Your task to perform on an android device: Open the map Image 0: 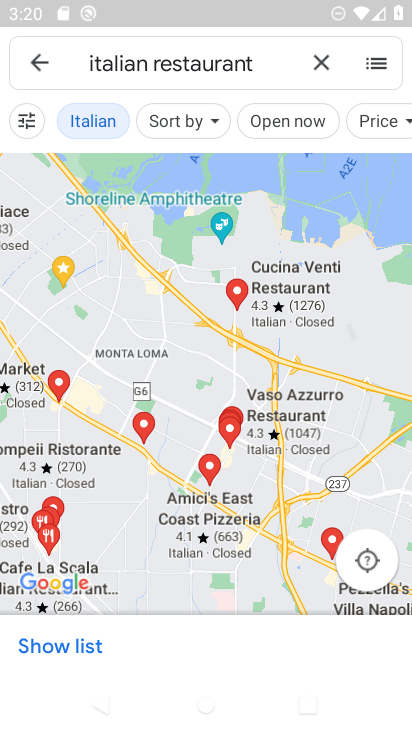
Step 0: click (200, 460)
Your task to perform on an android device: Open the map Image 1: 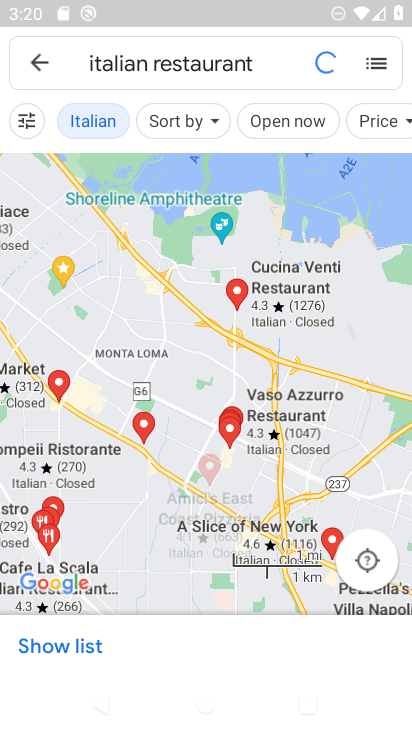
Step 1: click (314, 67)
Your task to perform on an android device: Open the map Image 2: 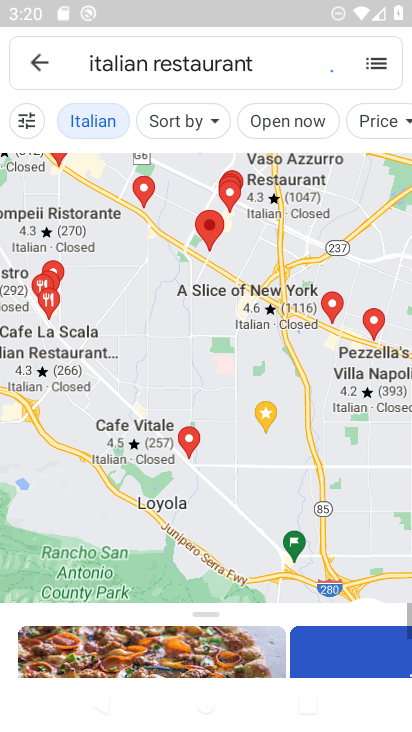
Step 2: task complete